Your task to perform on an android device: Open Google Chrome and open the bookmarks view Image 0: 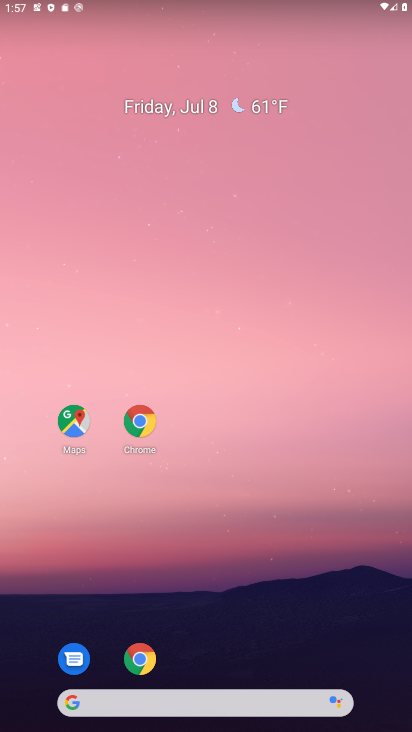
Step 0: drag from (200, 673) to (213, 64)
Your task to perform on an android device: Open Google Chrome and open the bookmarks view Image 1: 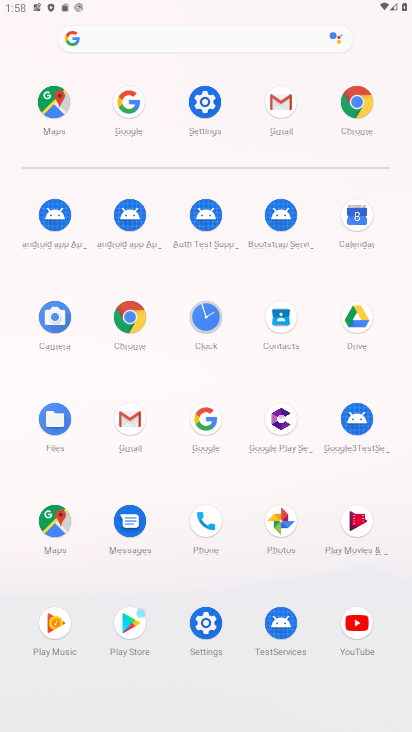
Step 1: click (362, 104)
Your task to perform on an android device: Open Google Chrome and open the bookmarks view Image 2: 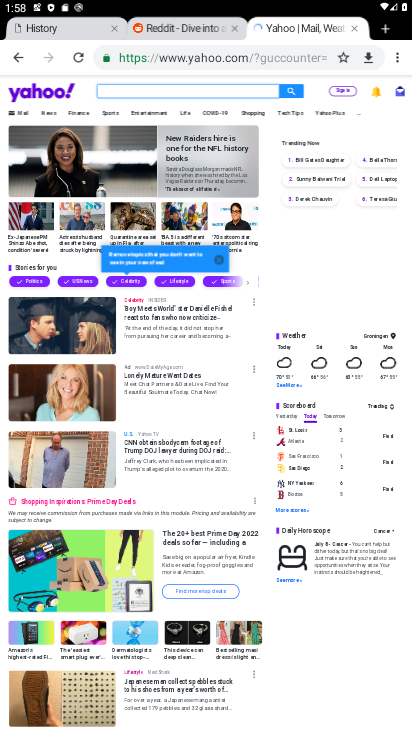
Step 2: task complete